Your task to perform on an android device: Open calendar and show me the third week of next month Image 0: 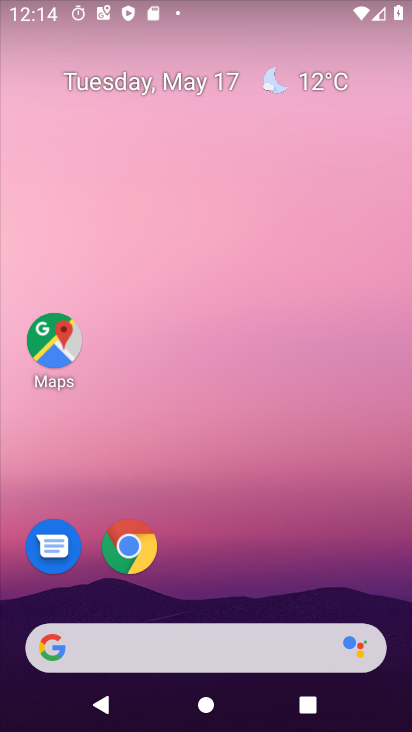
Step 0: drag from (210, 645) to (323, 185)
Your task to perform on an android device: Open calendar and show me the third week of next month Image 1: 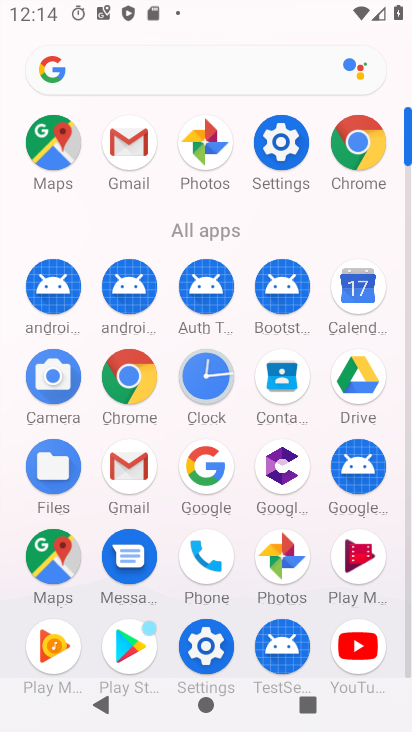
Step 1: click (369, 293)
Your task to perform on an android device: Open calendar and show me the third week of next month Image 2: 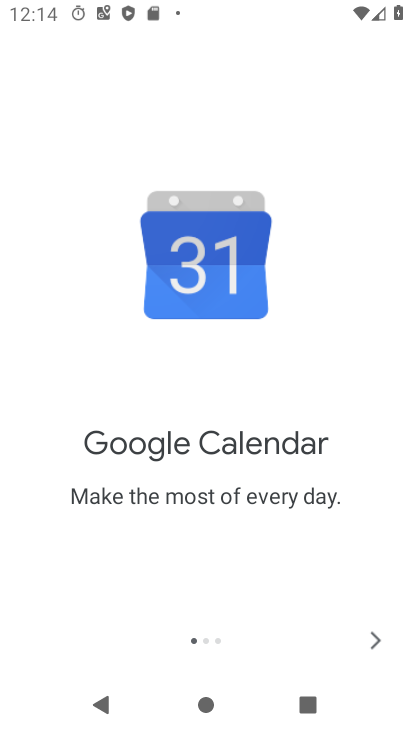
Step 2: click (374, 637)
Your task to perform on an android device: Open calendar and show me the third week of next month Image 3: 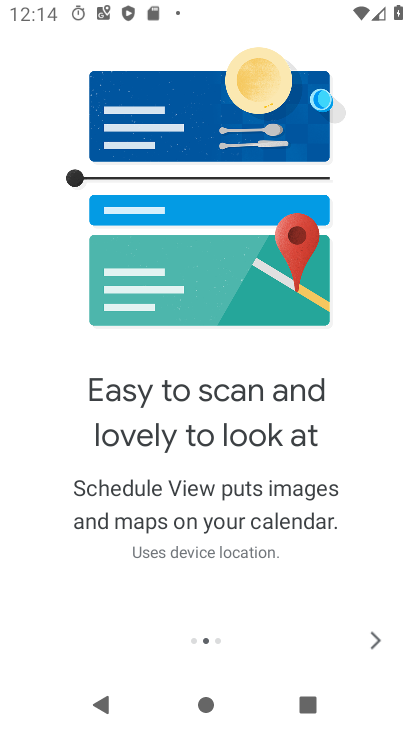
Step 3: click (374, 637)
Your task to perform on an android device: Open calendar and show me the third week of next month Image 4: 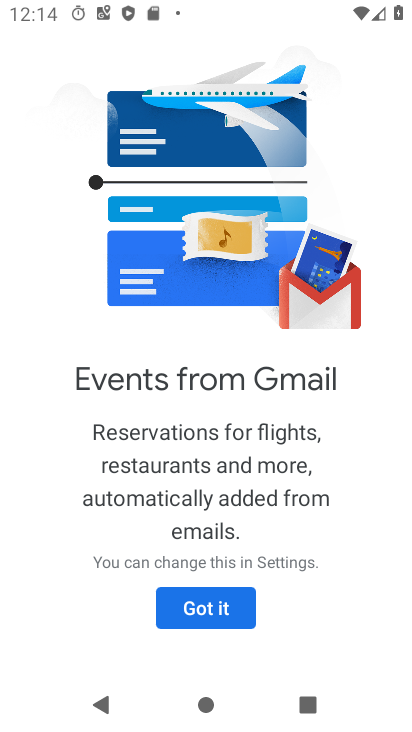
Step 4: click (235, 621)
Your task to perform on an android device: Open calendar and show me the third week of next month Image 5: 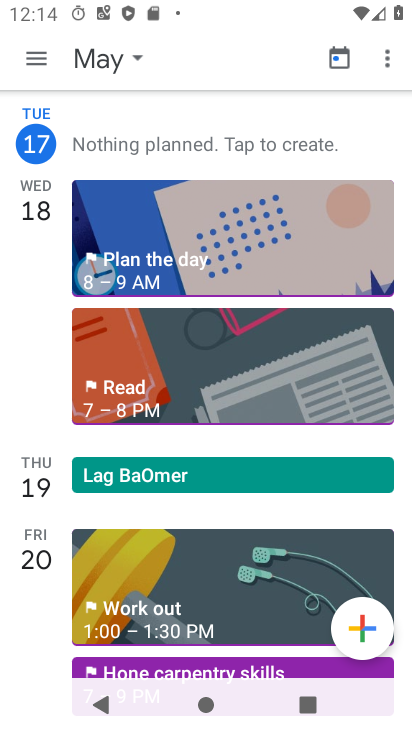
Step 5: click (103, 62)
Your task to perform on an android device: Open calendar and show me the third week of next month Image 6: 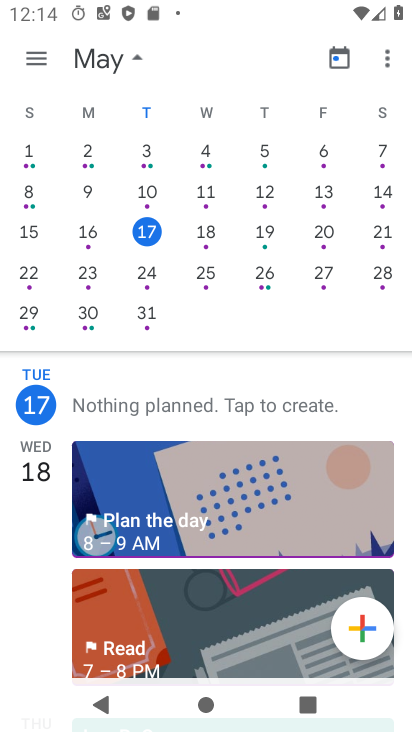
Step 6: drag from (335, 208) to (74, 175)
Your task to perform on an android device: Open calendar and show me the third week of next month Image 7: 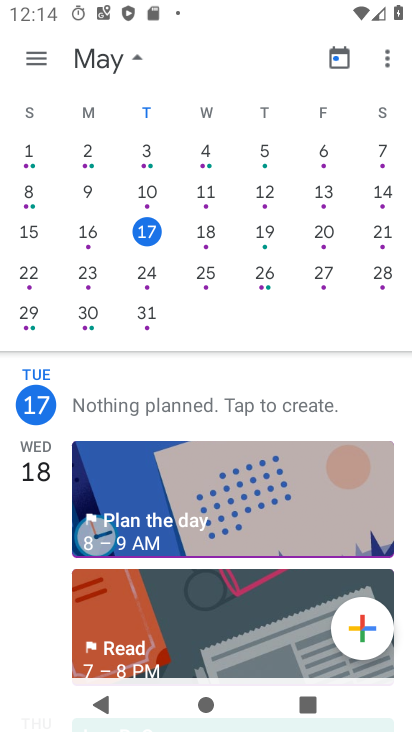
Step 7: drag from (346, 213) to (19, 161)
Your task to perform on an android device: Open calendar and show me the third week of next month Image 8: 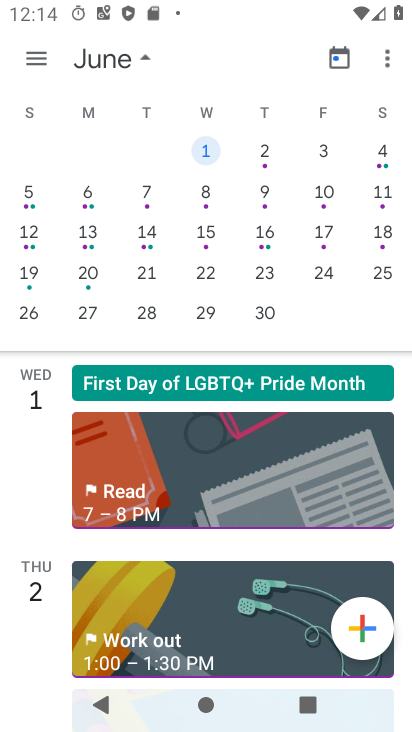
Step 8: click (31, 231)
Your task to perform on an android device: Open calendar and show me the third week of next month Image 9: 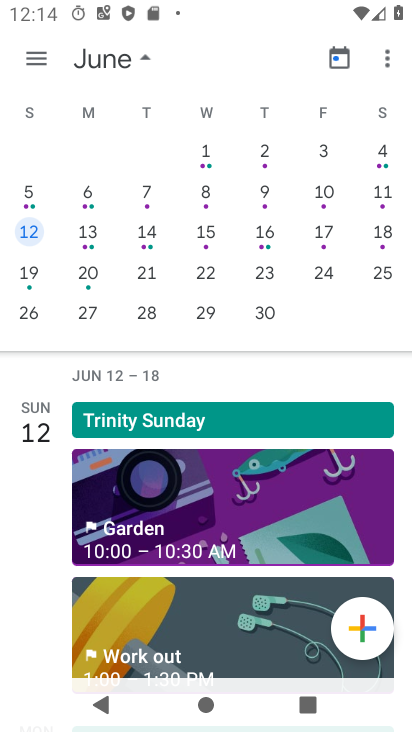
Step 9: click (45, 58)
Your task to perform on an android device: Open calendar and show me the third week of next month Image 10: 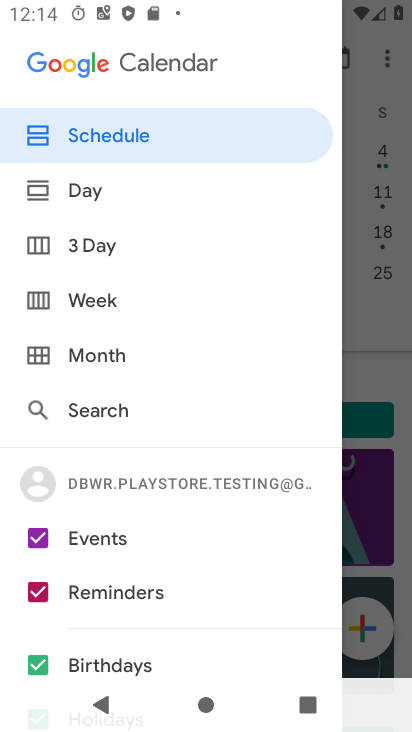
Step 10: click (115, 309)
Your task to perform on an android device: Open calendar and show me the third week of next month Image 11: 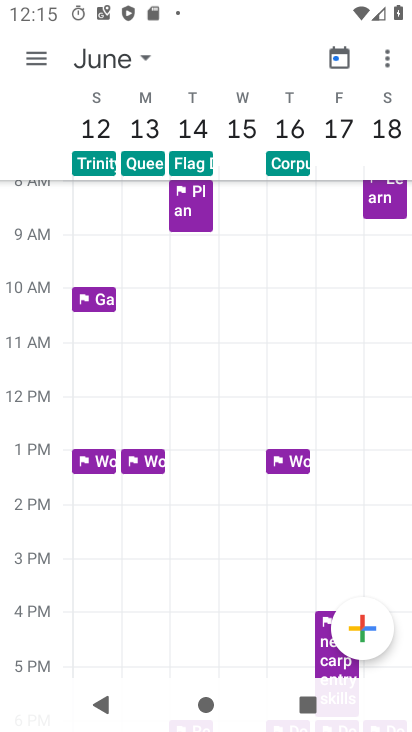
Step 11: task complete